Your task to perform on an android device: Go to calendar. Show me events next week Image 0: 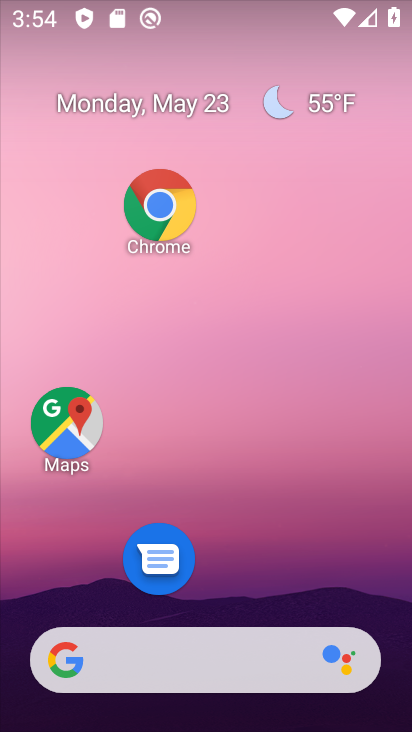
Step 0: drag from (318, 620) to (212, 169)
Your task to perform on an android device: Go to calendar. Show me events next week Image 1: 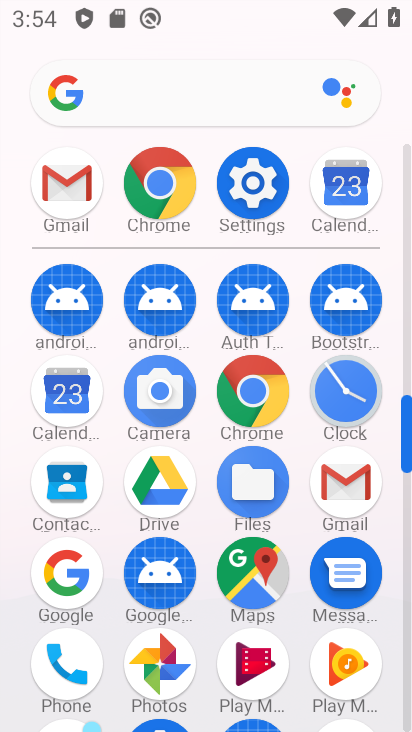
Step 1: click (71, 400)
Your task to perform on an android device: Go to calendar. Show me events next week Image 2: 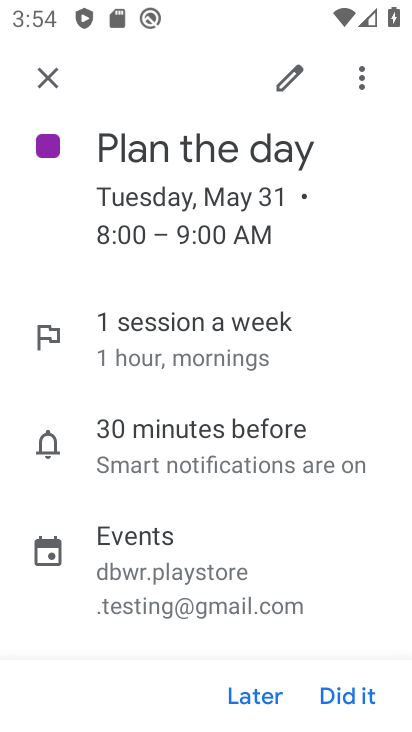
Step 2: click (43, 64)
Your task to perform on an android device: Go to calendar. Show me events next week Image 3: 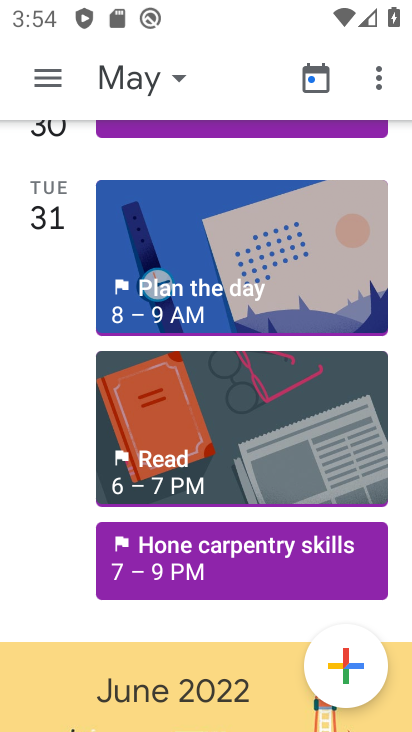
Step 3: drag from (219, 429) to (187, 150)
Your task to perform on an android device: Go to calendar. Show me events next week Image 4: 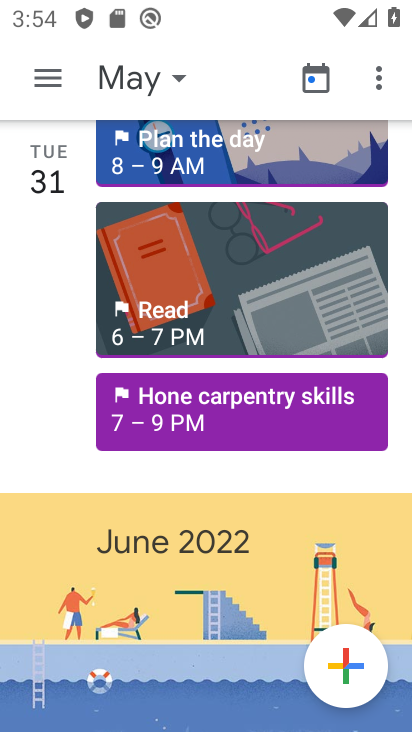
Step 4: drag from (230, 332) to (231, 113)
Your task to perform on an android device: Go to calendar. Show me events next week Image 5: 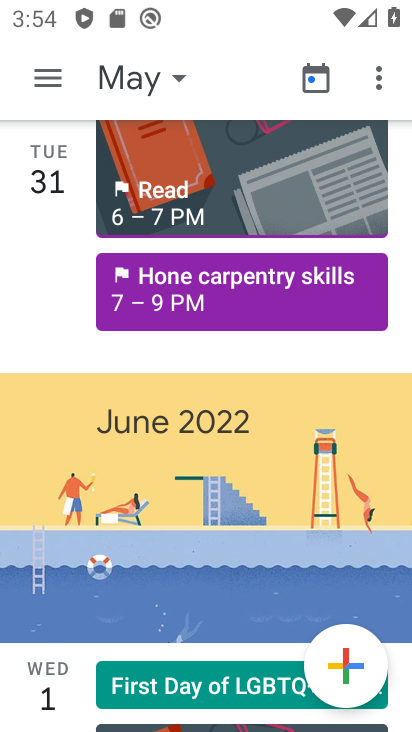
Step 5: drag from (265, 392) to (223, 78)
Your task to perform on an android device: Go to calendar. Show me events next week Image 6: 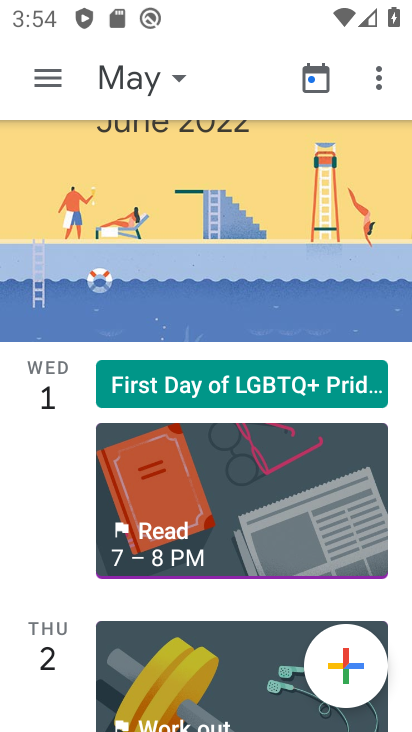
Step 6: drag from (244, 391) to (244, 131)
Your task to perform on an android device: Go to calendar. Show me events next week Image 7: 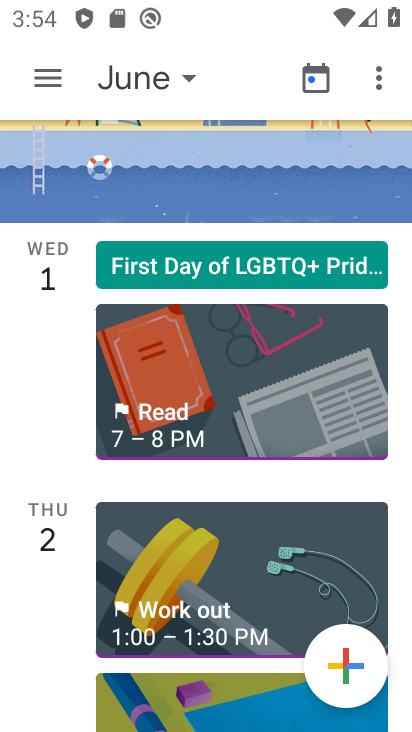
Step 7: drag from (247, 464) to (224, 137)
Your task to perform on an android device: Go to calendar. Show me events next week Image 8: 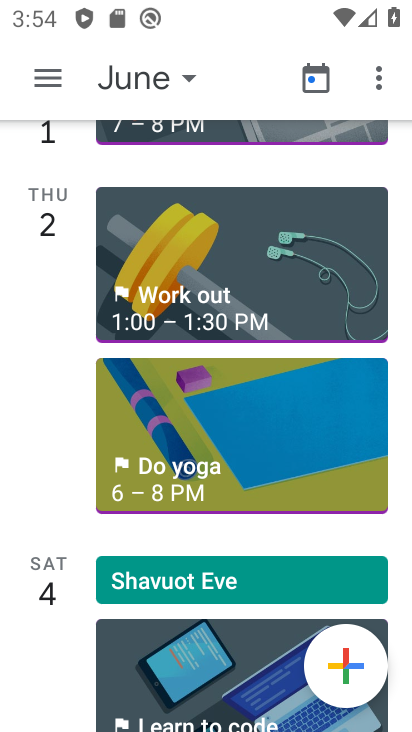
Step 8: drag from (248, 294) to (246, 186)
Your task to perform on an android device: Go to calendar. Show me events next week Image 9: 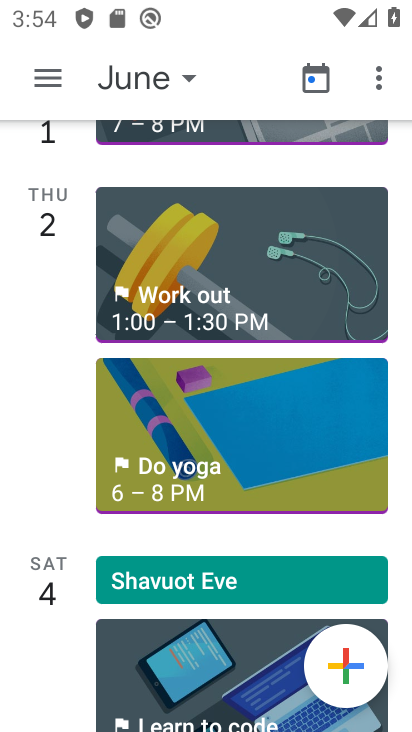
Step 9: drag from (270, 463) to (251, 120)
Your task to perform on an android device: Go to calendar. Show me events next week Image 10: 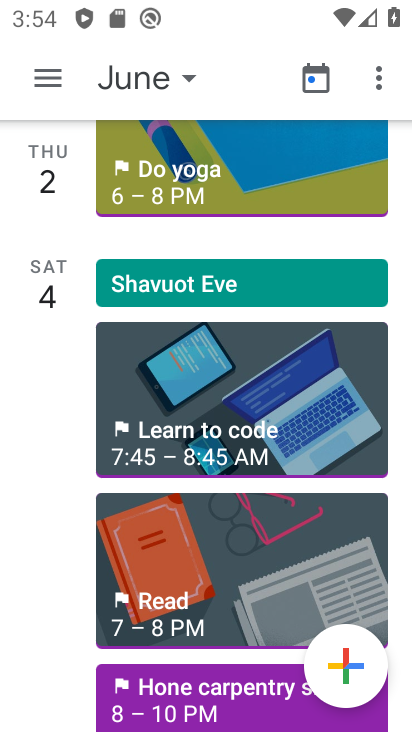
Step 10: drag from (287, 389) to (279, 76)
Your task to perform on an android device: Go to calendar. Show me events next week Image 11: 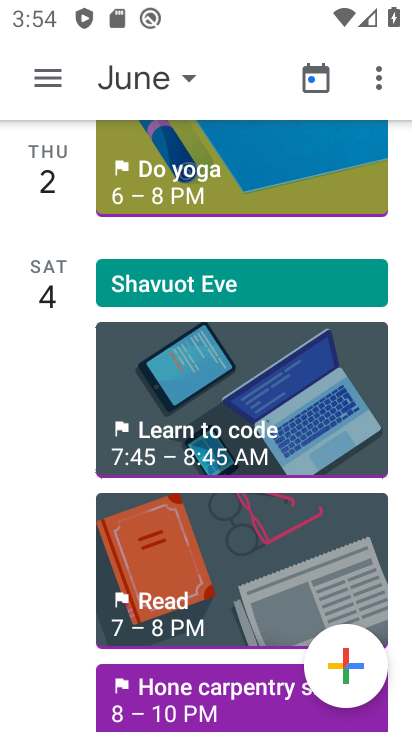
Step 11: drag from (262, 514) to (211, 166)
Your task to perform on an android device: Go to calendar. Show me events next week Image 12: 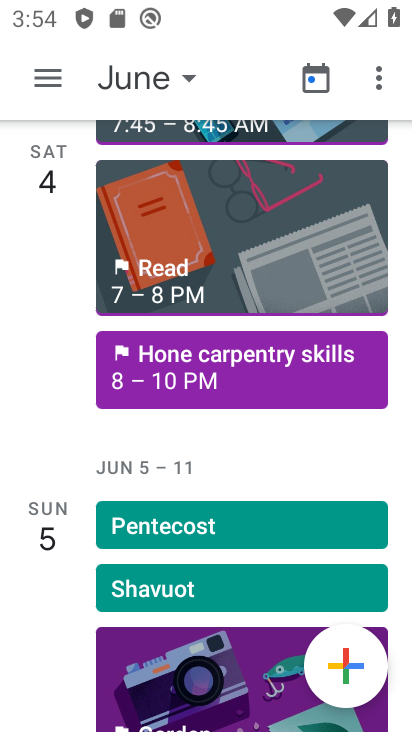
Step 12: drag from (207, 471) to (106, 103)
Your task to perform on an android device: Go to calendar. Show me events next week Image 13: 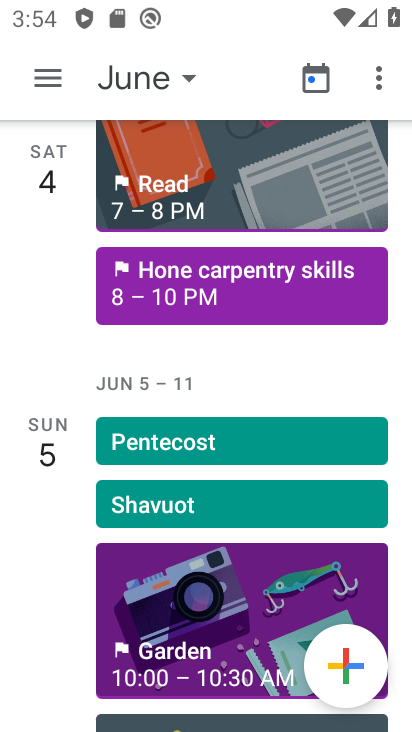
Step 13: drag from (41, 544) to (0, 175)
Your task to perform on an android device: Go to calendar. Show me events next week Image 14: 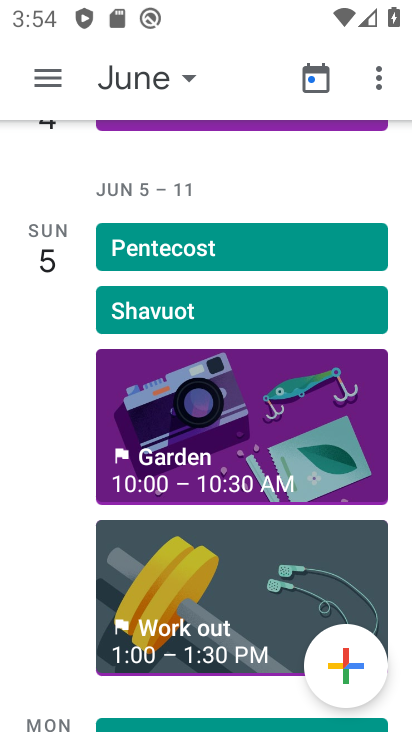
Step 14: drag from (153, 509) to (192, 254)
Your task to perform on an android device: Go to calendar. Show me events next week Image 15: 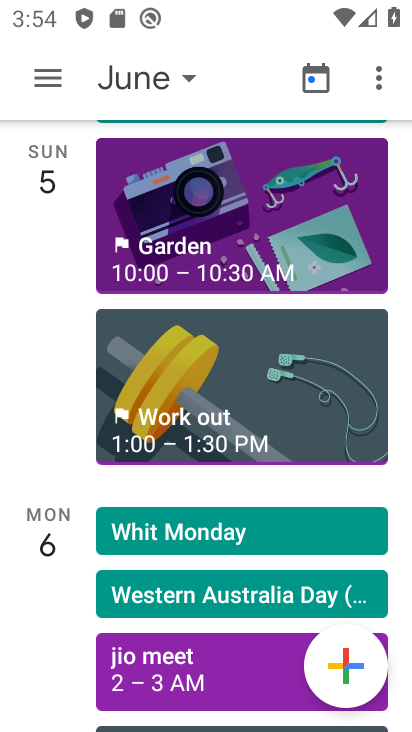
Step 15: drag from (199, 297) to (172, 595)
Your task to perform on an android device: Go to calendar. Show me events next week Image 16: 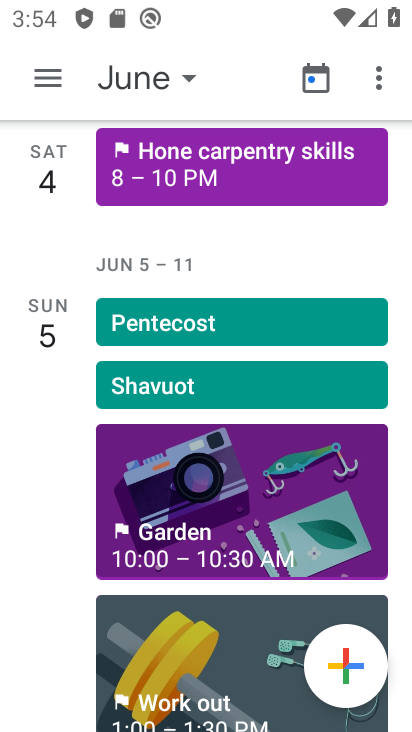
Step 16: drag from (158, 350) to (181, 478)
Your task to perform on an android device: Go to calendar. Show me events next week Image 17: 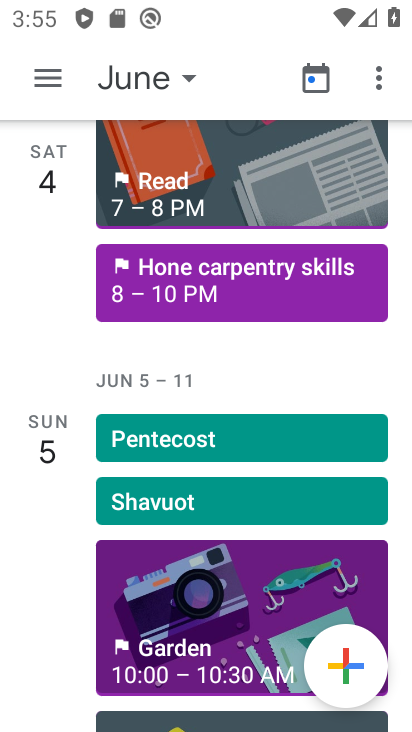
Step 17: click (184, 485)
Your task to perform on an android device: Go to calendar. Show me events next week Image 18: 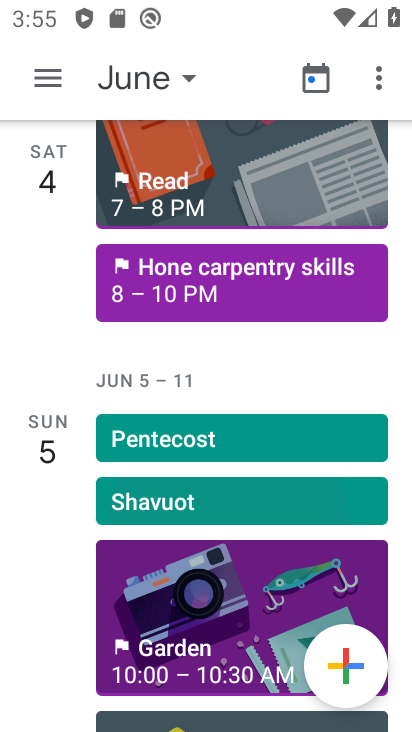
Step 18: drag from (160, 373) to (162, 531)
Your task to perform on an android device: Go to calendar. Show me events next week Image 19: 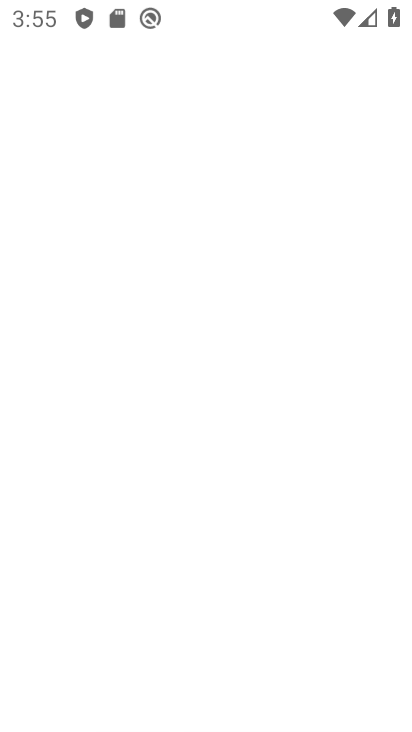
Step 19: drag from (158, 463) to (162, 570)
Your task to perform on an android device: Go to calendar. Show me events next week Image 20: 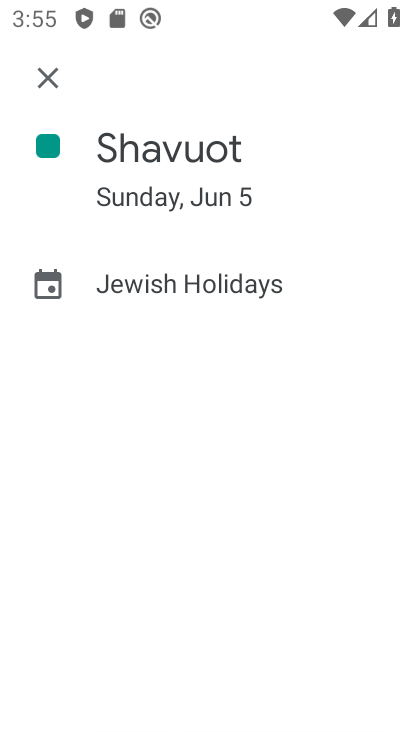
Step 20: drag from (173, 324) to (176, 590)
Your task to perform on an android device: Go to calendar. Show me events next week Image 21: 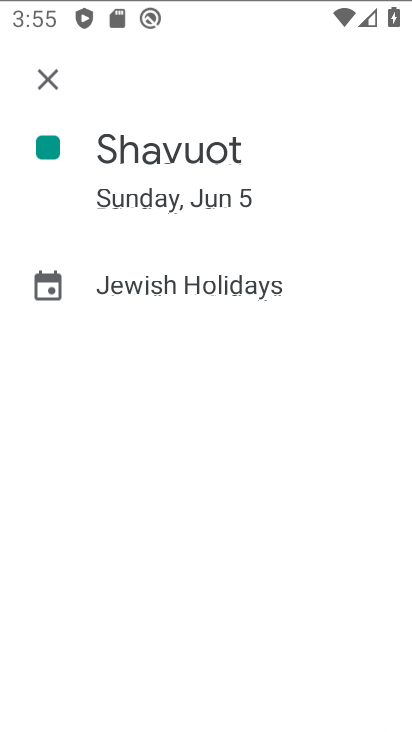
Step 21: drag from (187, 488) to (190, 616)
Your task to perform on an android device: Go to calendar. Show me events next week Image 22: 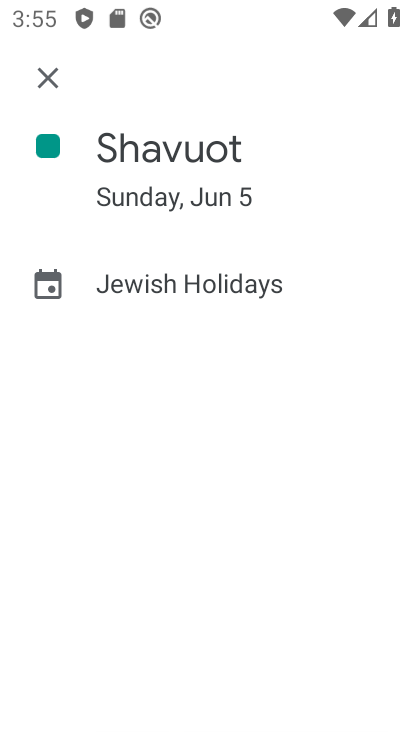
Step 22: click (43, 75)
Your task to perform on an android device: Go to calendar. Show me events next week Image 23: 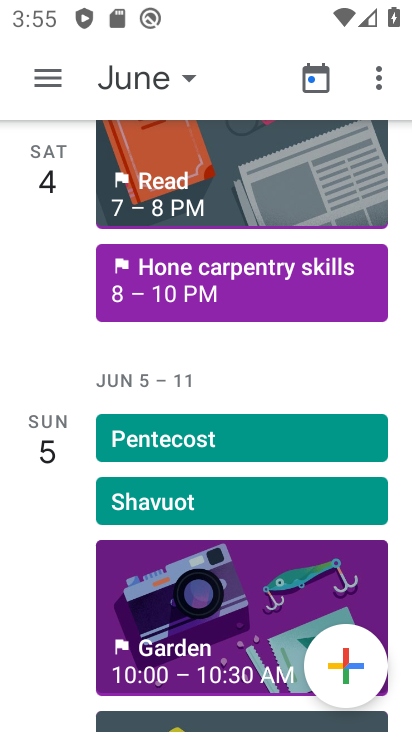
Step 23: drag from (203, 600) to (135, 198)
Your task to perform on an android device: Go to calendar. Show me events next week Image 24: 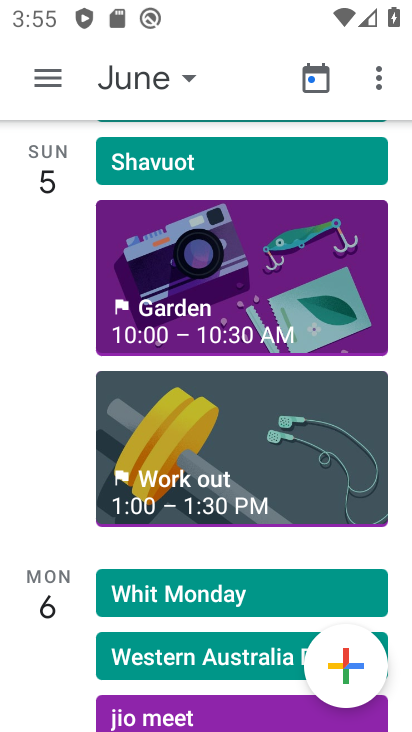
Step 24: drag from (196, 480) to (197, 224)
Your task to perform on an android device: Go to calendar. Show me events next week Image 25: 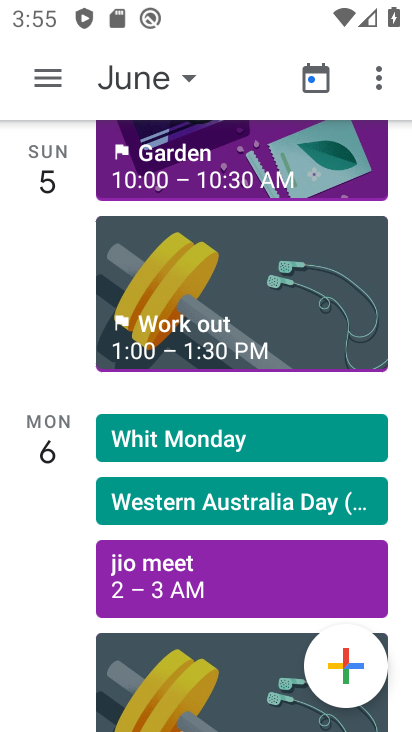
Step 25: drag from (197, 224) to (202, 622)
Your task to perform on an android device: Go to calendar. Show me events next week Image 26: 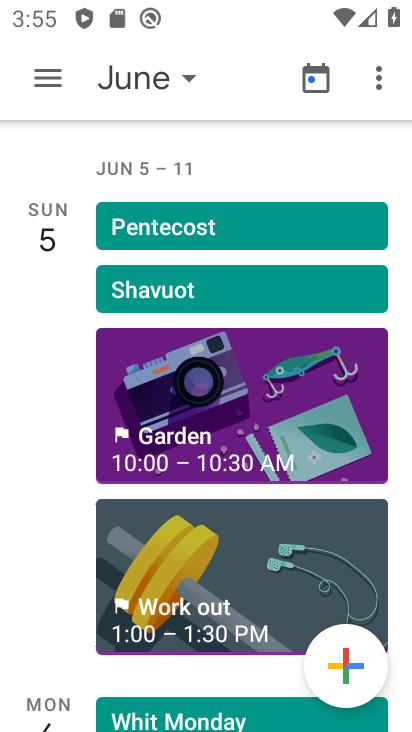
Step 26: drag from (205, 304) to (205, 605)
Your task to perform on an android device: Go to calendar. Show me events next week Image 27: 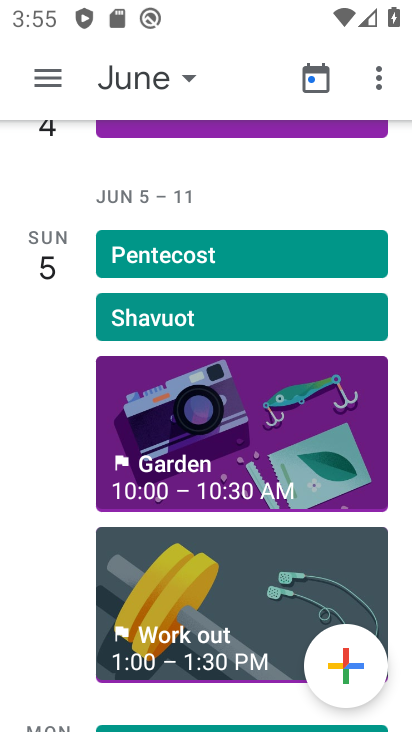
Step 27: drag from (203, 255) to (195, 583)
Your task to perform on an android device: Go to calendar. Show me events next week Image 28: 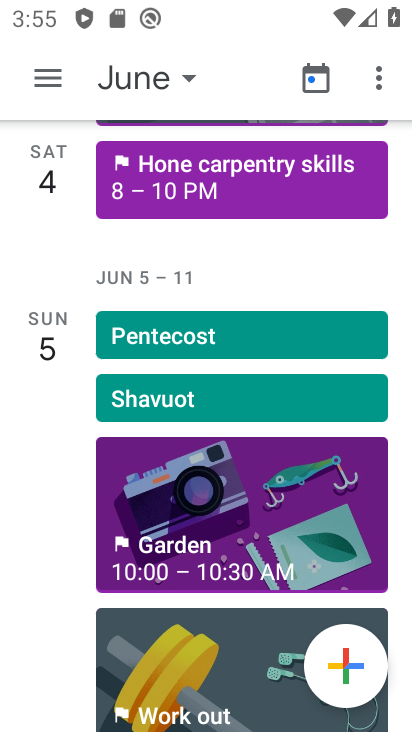
Step 28: drag from (168, 160) to (168, 549)
Your task to perform on an android device: Go to calendar. Show me events next week Image 29: 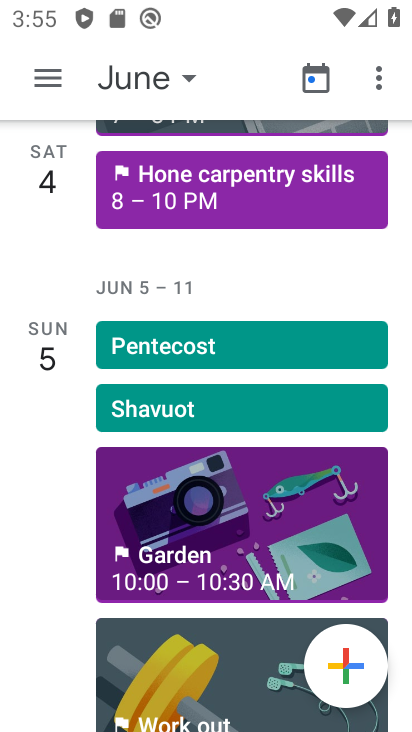
Step 29: drag from (189, 262) to (191, 584)
Your task to perform on an android device: Go to calendar. Show me events next week Image 30: 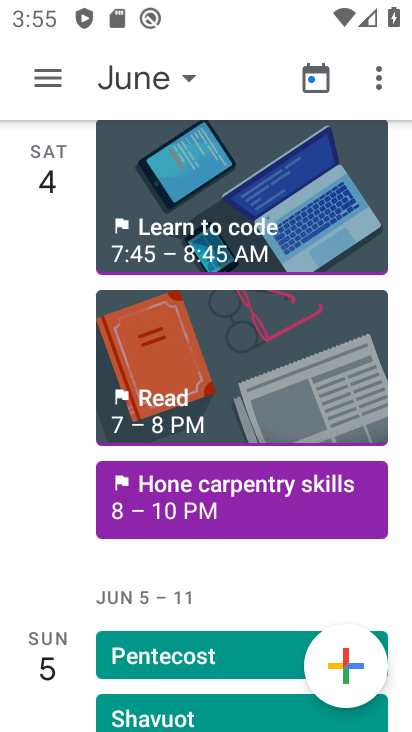
Step 30: drag from (168, 260) to (169, 576)
Your task to perform on an android device: Go to calendar. Show me events next week Image 31: 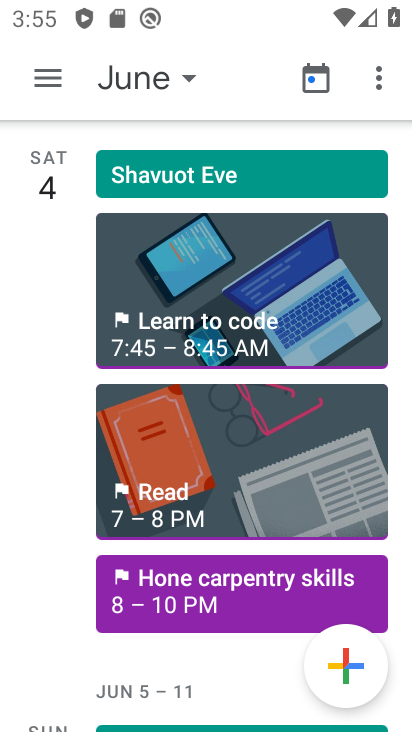
Step 31: click (183, 77)
Your task to perform on an android device: Go to calendar. Show me events next week Image 32: 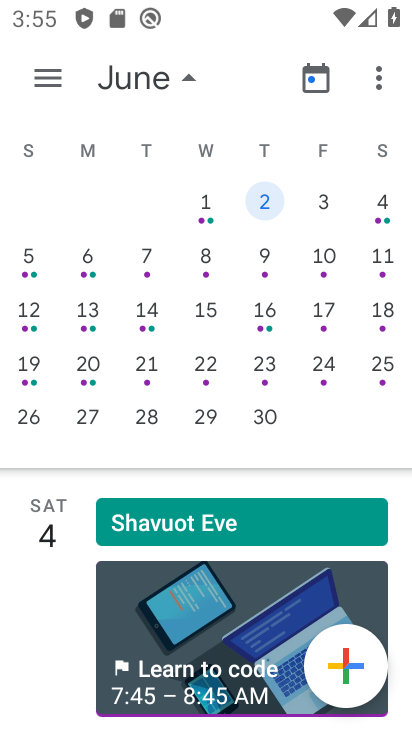
Step 32: click (194, 77)
Your task to perform on an android device: Go to calendar. Show me events next week Image 33: 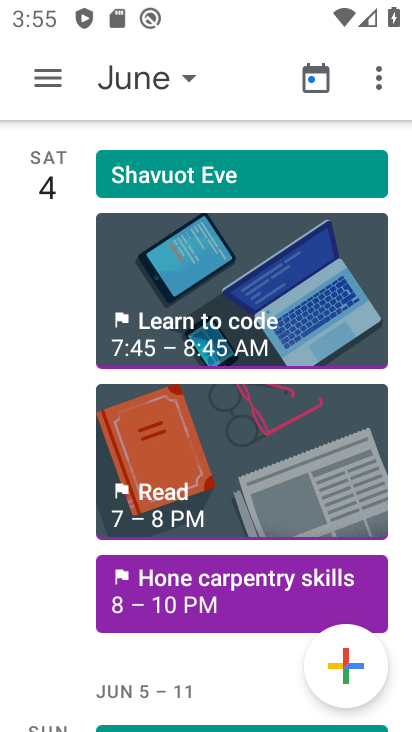
Step 33: click (182, 76)
Your task to perform on an android device: Go to calendar. Show me events next week Image 34: 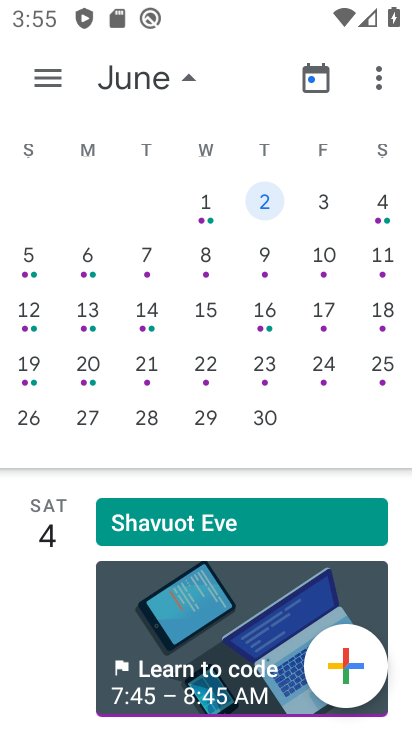
Step 34: click (408, 337)
Your task to perform on an android device: Go to calendar. Show me events next week Image 35: 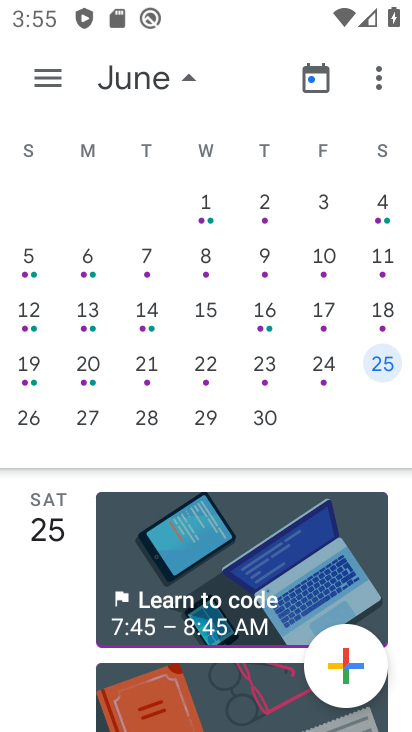
Step 35: click (406, 313)
Your task to perform on an android device: Go to calendar. Show me events next week Image 36: 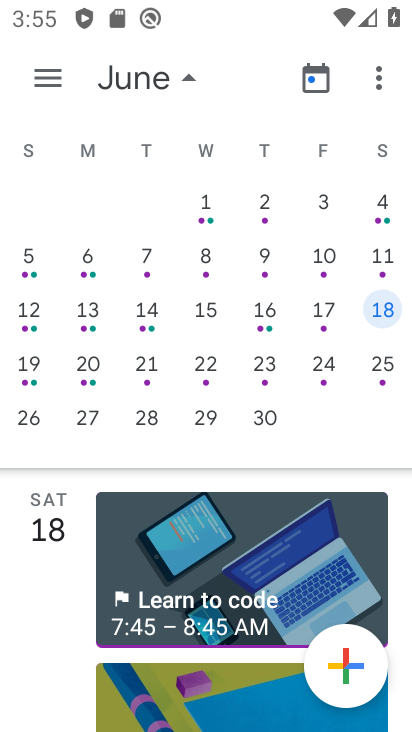
Step 36: click (374, 358)
Your task to perform on an android device: Go to calendar. Show me events next week Image 37: 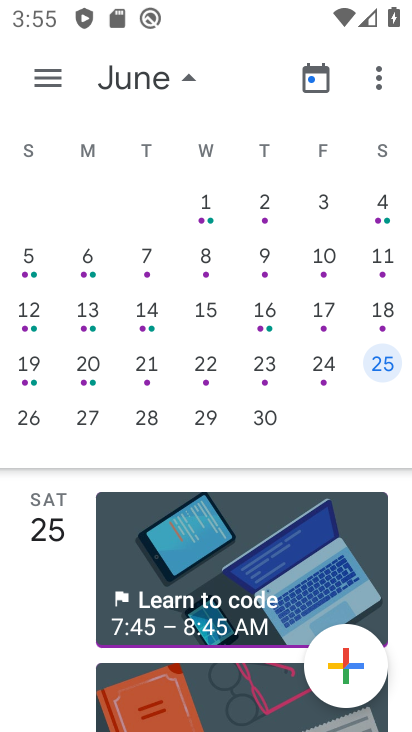
Step 37: drag from (370, 334) to (391, 278)
Your task to perform on an android device: Go to calendar. Show me events next week Image 38: 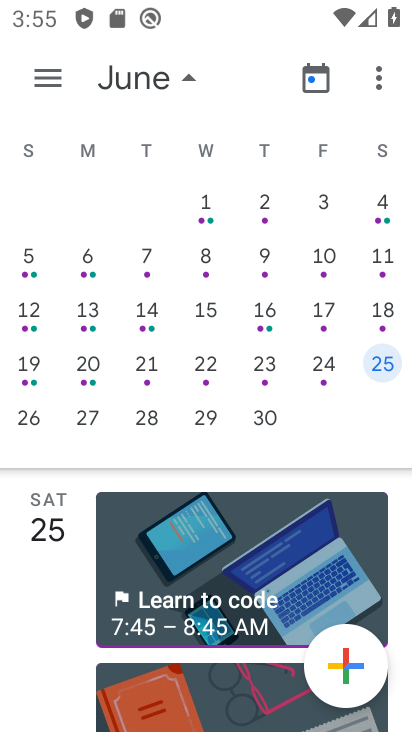
Step 38: drag from (373, 317) to (398, 287)
Your task to perform on an android device: Go to calendar. Show me events next week Image 39: 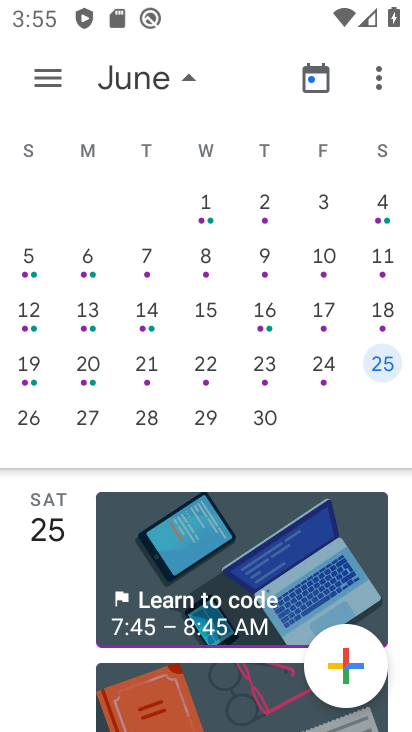
Step 39: drag from (74, 334) to (367, 402)
Your task to perform on an android device: Go to calendar. Show me events next week Image 40: 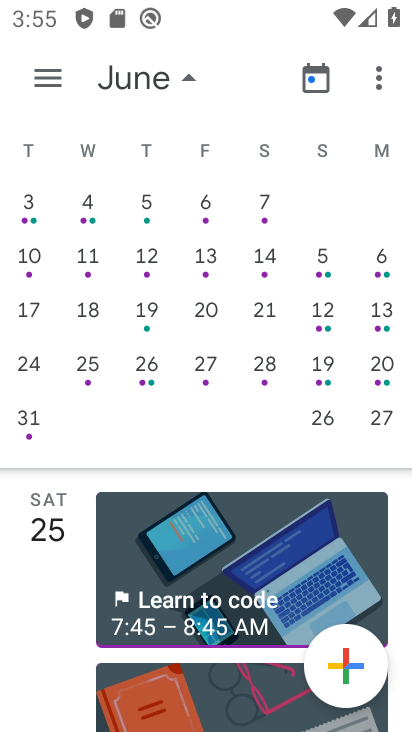
Step 40: drag from (167, 369) to (386, 341)
Your task to perform on an android device: Go to calendar. Show me events next week Image 41: 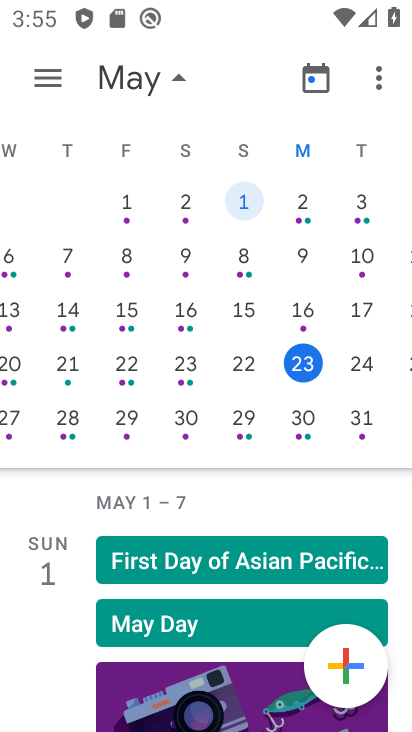
Step 41: drag from (182, 289) to (374, 283)
Your task to perform on an android device: Go to calendar. Show me events next week Image 42: 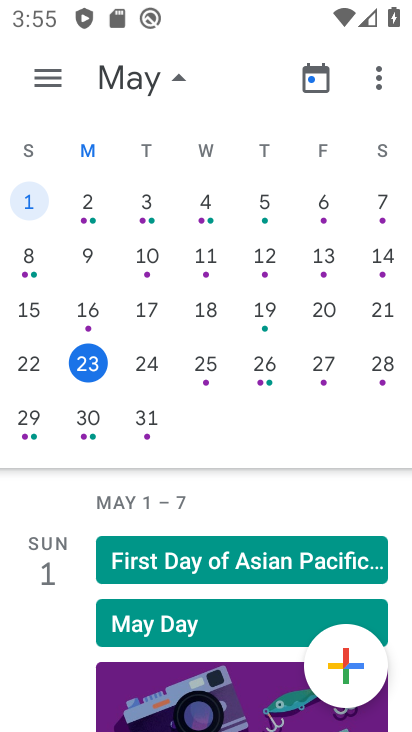
Step 42: click (84, 417)
Your task to perform on an android device: Go to calendar. Show me events next week Image 43: 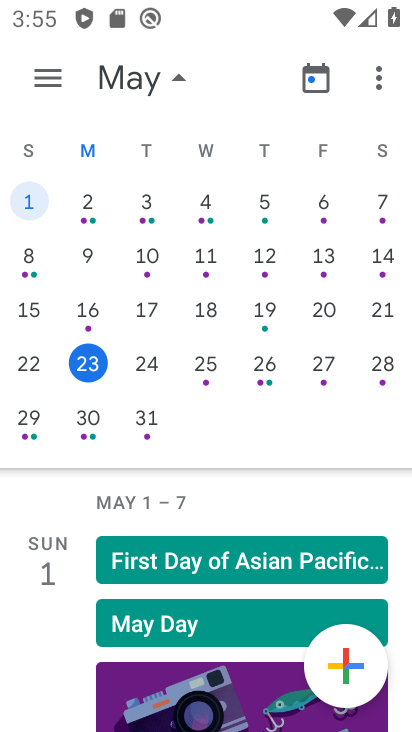
Step 43: click (84, 416)
Your task to perform on an android device: Go to calendar. Show me events next week Image 44: 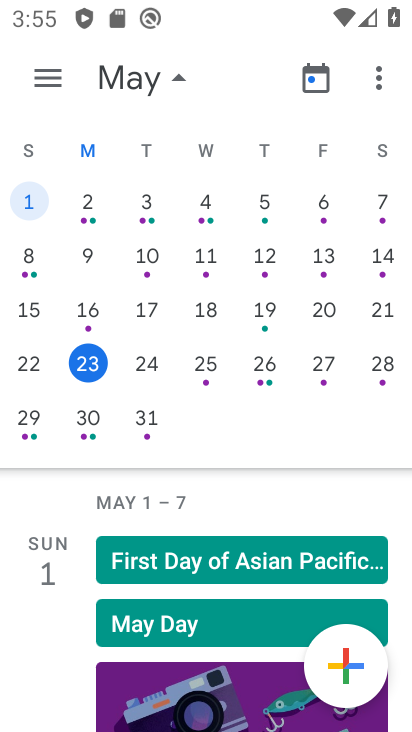
Step 44: click (84, 416)
Your task to perform on an android device: Go to calendar. Show me events next week Image 45: 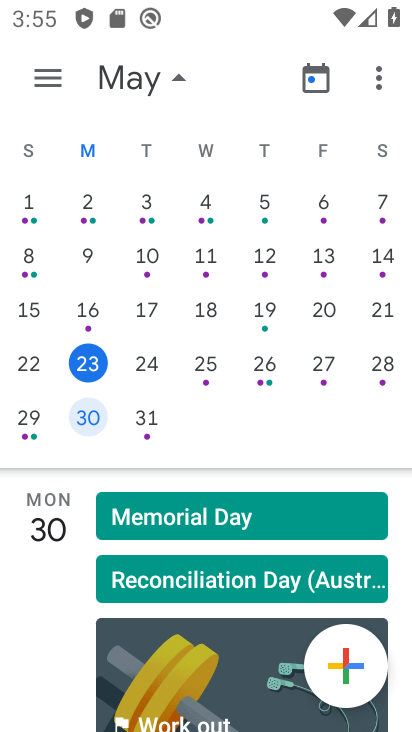
Step 45: click (84, 416)
Your task to perform on an android device: Go to calendar. Show me events next week Image 46: 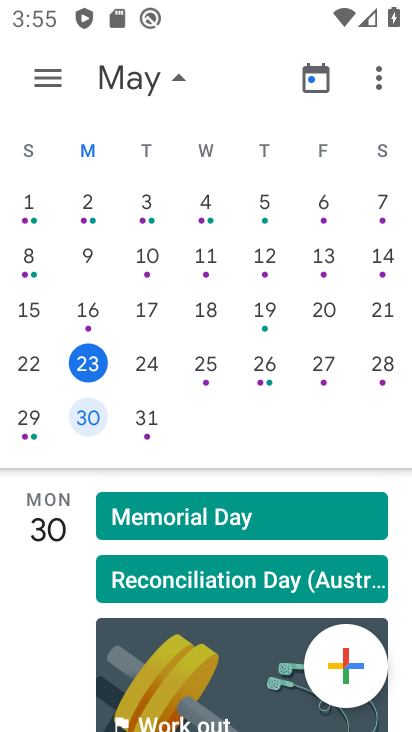
Step 46: click (84, 416)
Your task to perform on an android device: Go to calendar. Show me events next week Image 47: 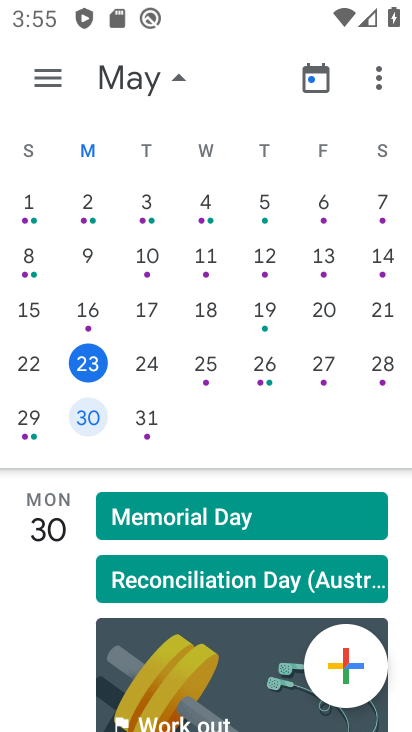
Step 47: task complete